Your task to perform on an android device: Go to display settings Image 0: 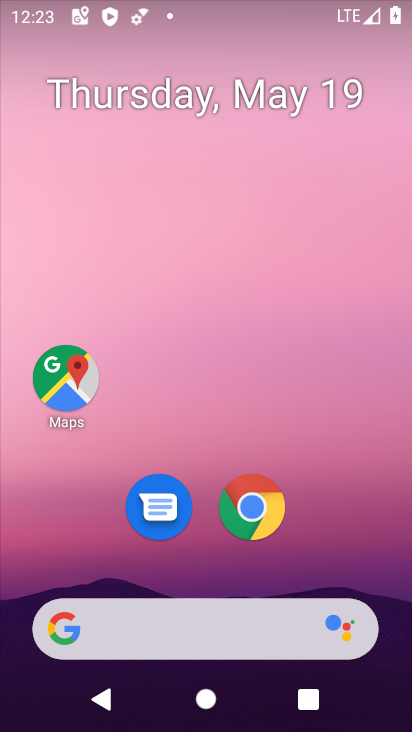
Step 0: drag from (205, 581) to (229, 103)
Your task to perform on an android device: Go to display settings Image 1: 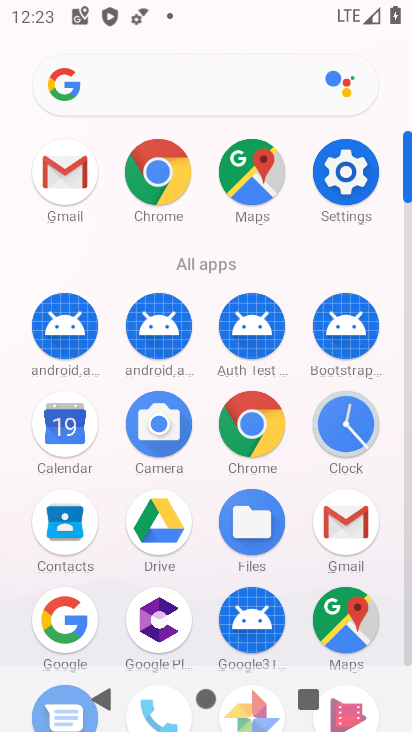
Step 1: click (353, 185)
Your task to perform on an android device: Go to display settings Image 2: 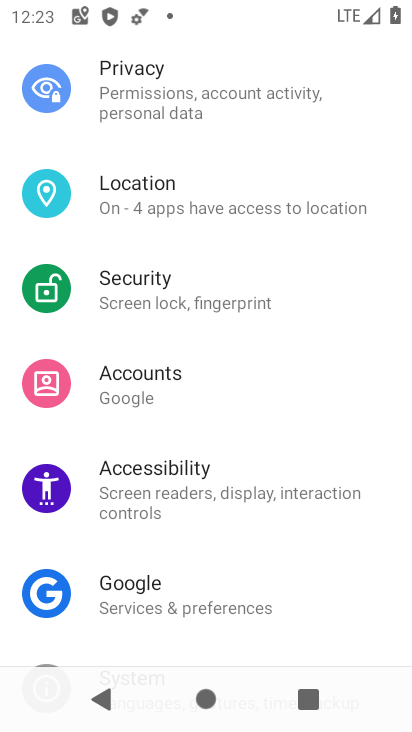
Step 2: drag from (259, 171) to (239, 474)
Your task to perform on an android device: Go to display settings Image 3: 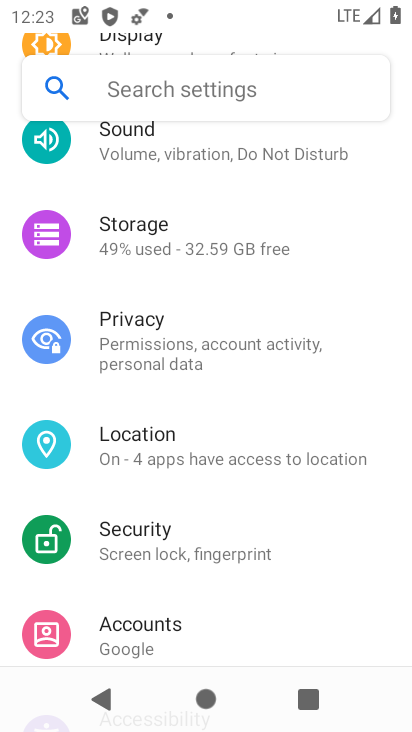
Step 3: drag from (266, 232) to (250, 490)
Your task to perform on an android device: Go to display settings Image 4: 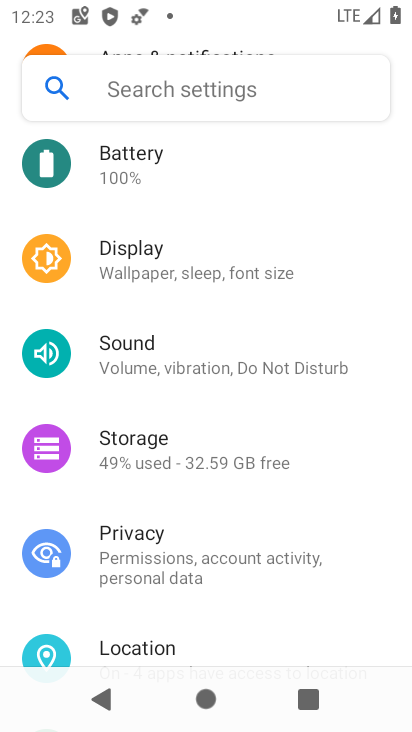
Step 4: drag from (277, 322) to (252, 580)
Your task to perform on an android device: Go to display settings Image 5: 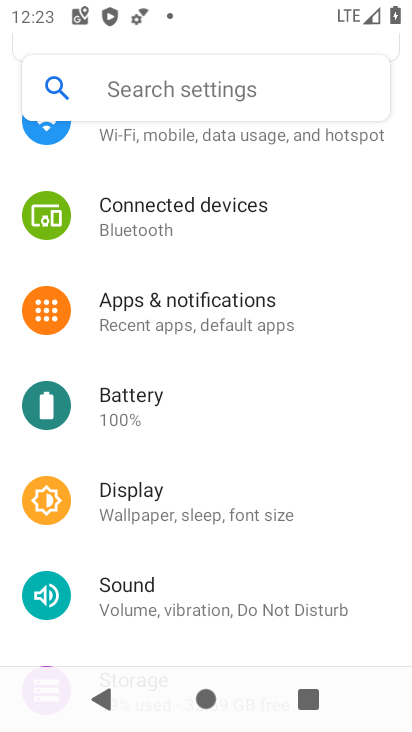
Step 5: click (205, 515)
Your task to perform on an android device: Go to display settings Image 6: 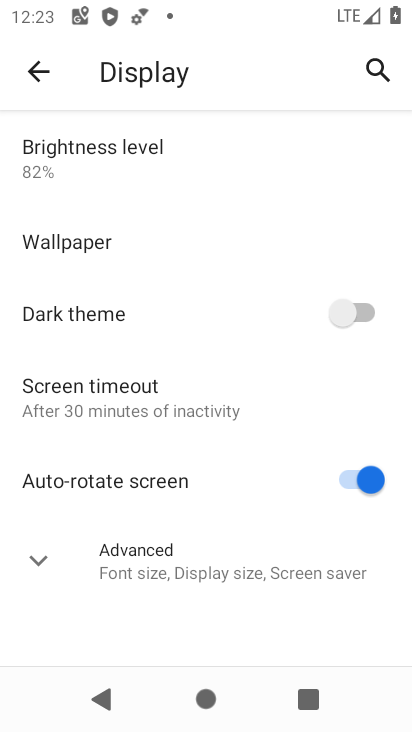
Step 6: task complete